Your task to perform on an android device: set the stopwatch Image 0: 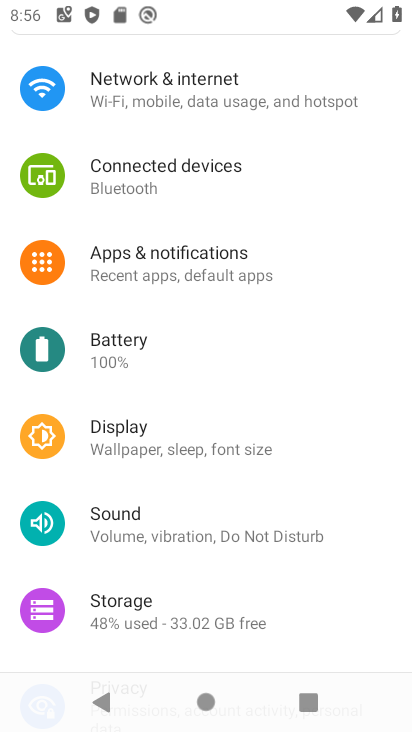
Step 0: press home button
Your task to perform on an android device: set the stopwatch Image 1: 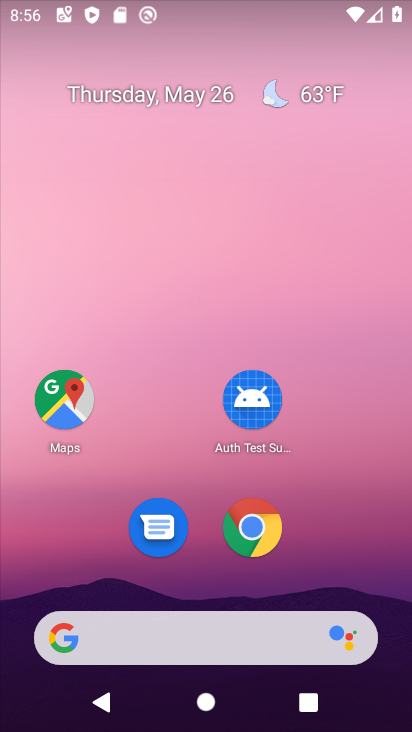
Step 1: drag from (321, 562) to (318, 96)
Your task to perform on an android device: set the stopwatch Image 2: 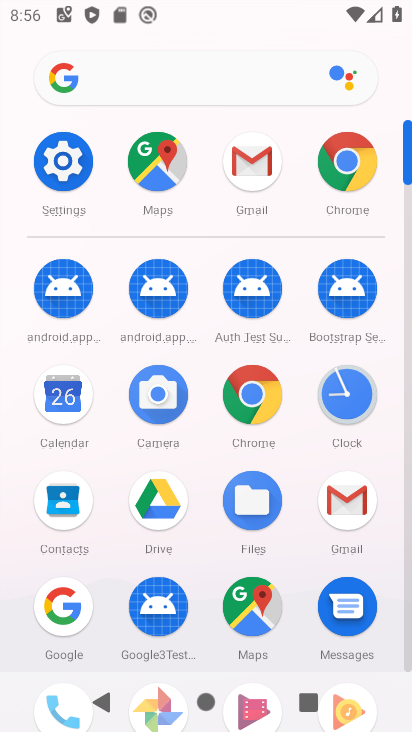
Step 2: click (344, 386)
Your task to perform on an android device: set the stopwatch Image 3: 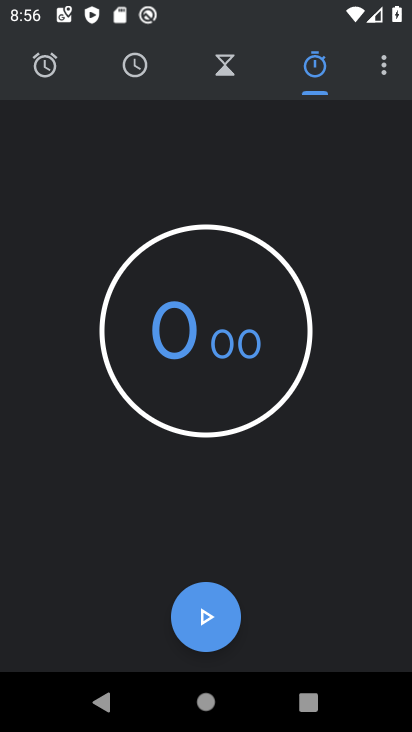
Step 3: click (202, 619)
Your task to perform on an android device: set the stopwatch Image 4: 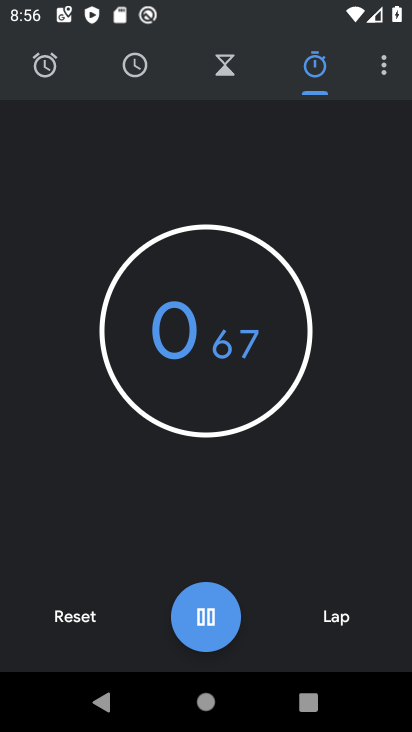
Step 4: task complete